Your task to perform on an android device: open app "VLC for Android" (install if not already installed) Image 0: 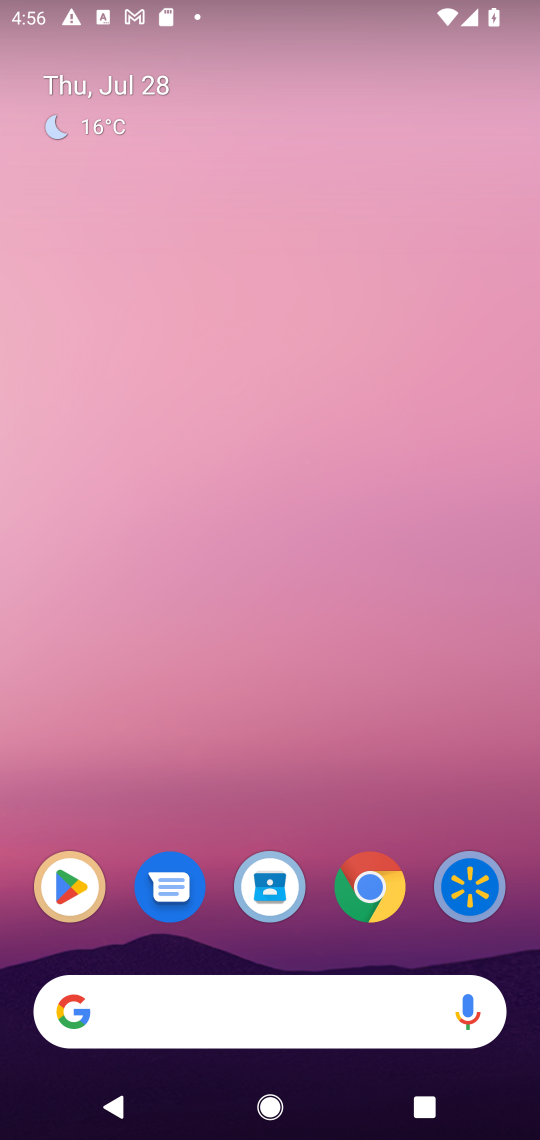
Step 0: drag from (360, 508) to (107, 439)
Your task to perform on an android device: open app "VLC for Android" (install if not already installed) Image 1: 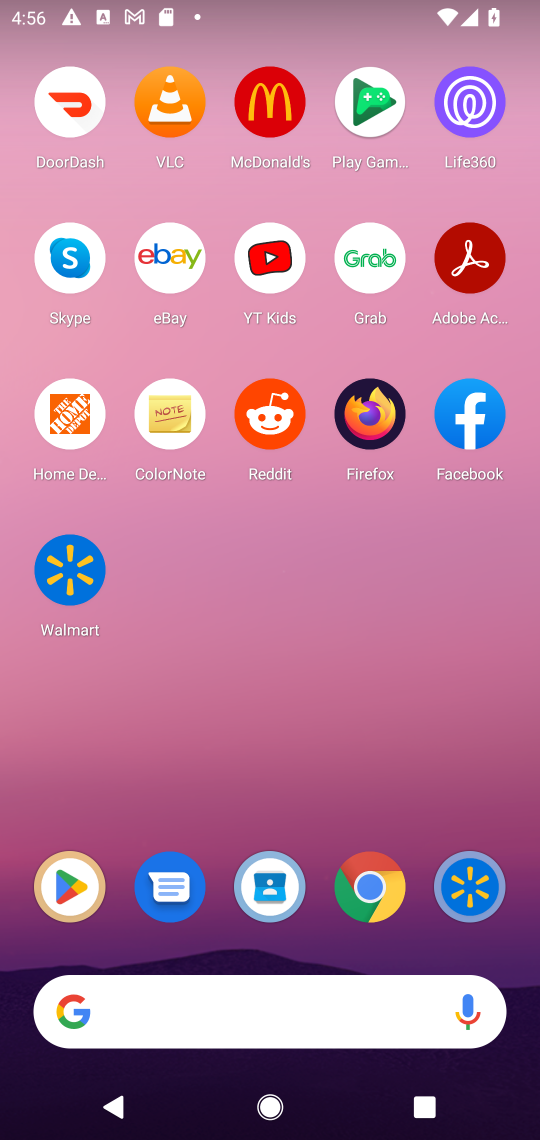
Step 1: click (179, 132)
Your task to perform on an android device: open app "VLC for Android" (install if not already installed) Image 2: 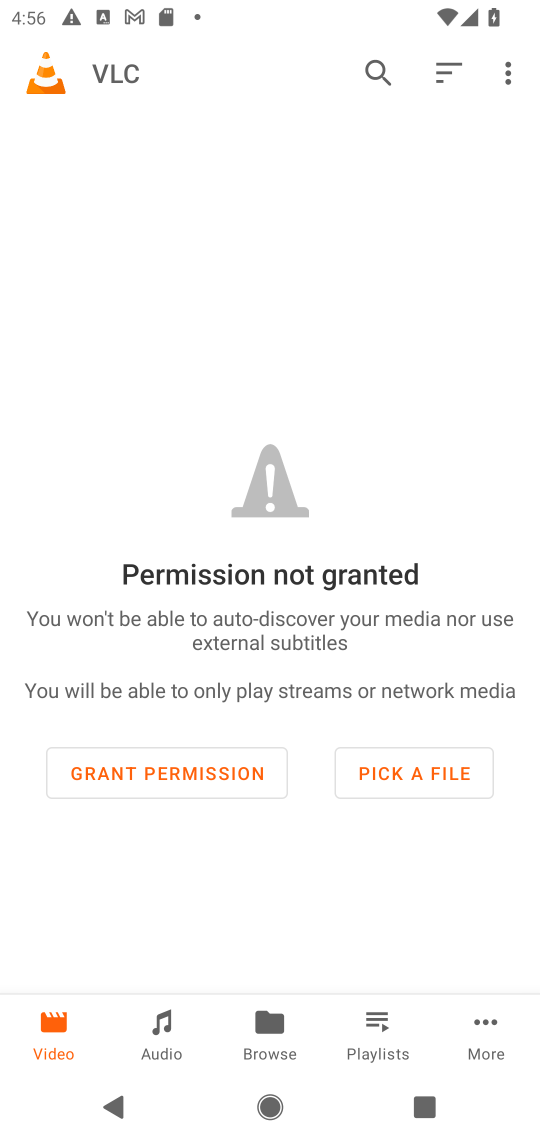
Step 2: task complete